Your task to perform on an android device: Open the Play Movies app and select the watchlist tab. Image 0: 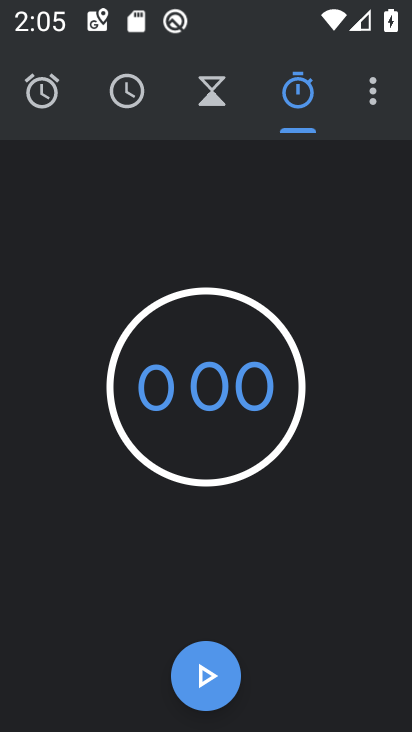
Step 0: press home button
Your task to perform on an android device: Open the Play Movies app and select the watchlist tab. Image 1: 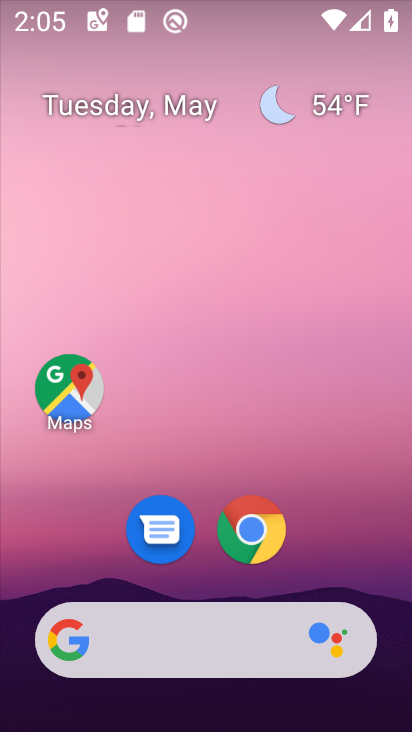
Step 1: drag from (316, 556) to (325, 206)
Your task to perform on an android device: Open the Play Movies app and select the watchlist tab. Image 2: 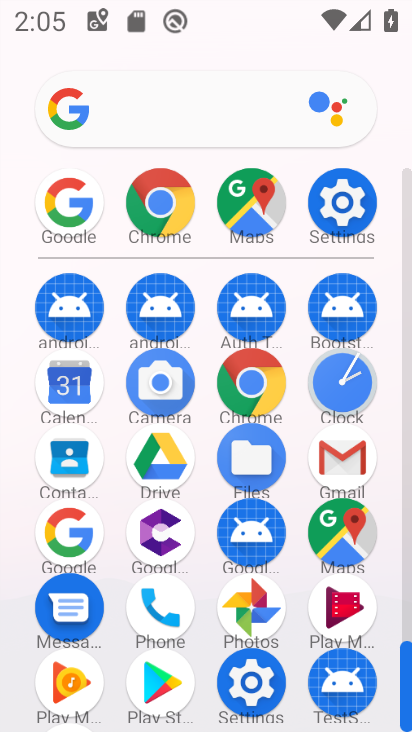
Step 2: drag from (290, 473) to (282, 309)
Your task to perform on an android device: Open the Play Movies app and select the watchlist tab. Image 3: 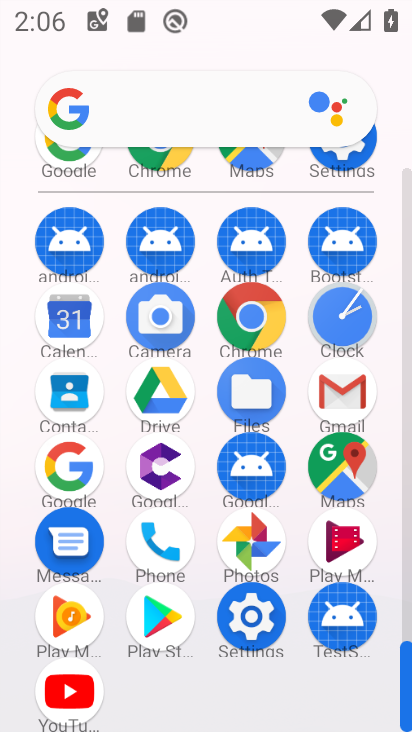
Step 3: click (326, 540)
Your task to perform on an android device: Open the Play Movies app and select the watchlist tab. Image 4: 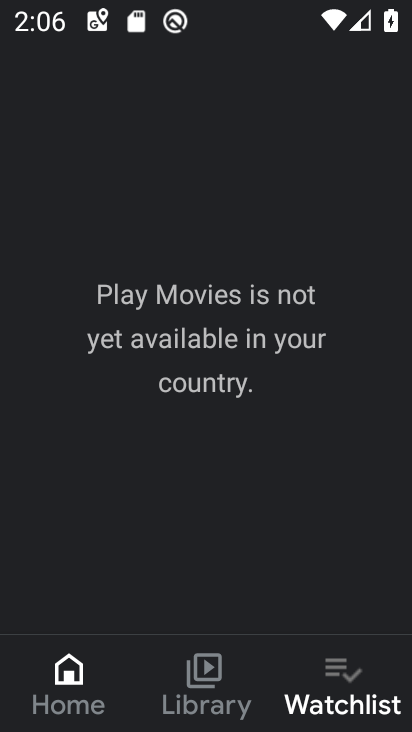
Step 4: click (349, 678)
Your task to perform on an android device: Open the Play Movies app and select the watchlist tab. Image 5: 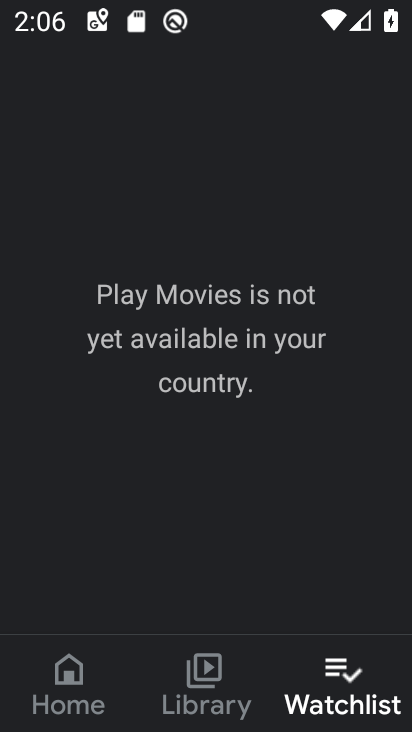
Step 5: task complete